Your task to perform on an android device: open app "Messenger Lite" Image 0: 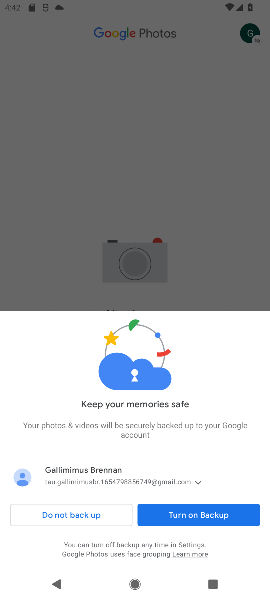
Step 0: press home button
Your task to perform on an android device: open app "Messenger Lite" Image 1: 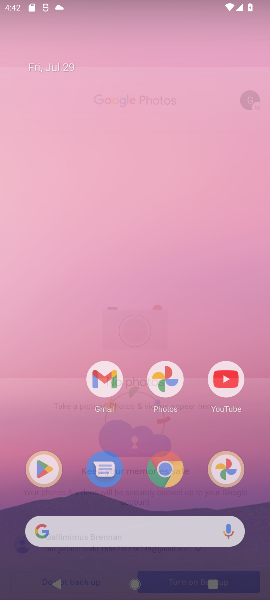
Step 1: press home button
Your task to perform on an android device: open app "Messenger Lite" Image 2: 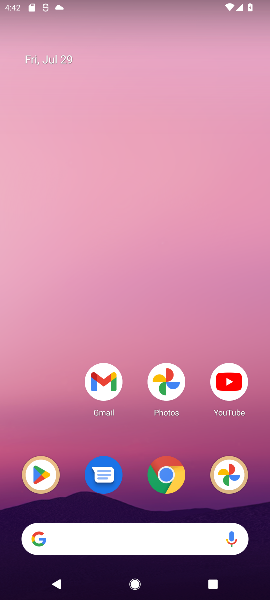
Step 2: press home button
Your task to perform on an android device: open app "Messenger Lite" Image 3: 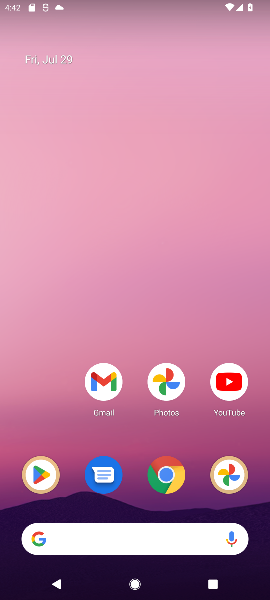
Step 3: press home button
Your task to perform on an android device: open app "Messenger Lite" Image 4: 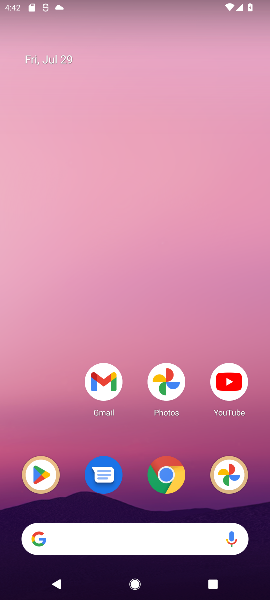
Step 4: click (36, 467)
Your task to perform on an android device: open app "Messenger Lite" Image 5: 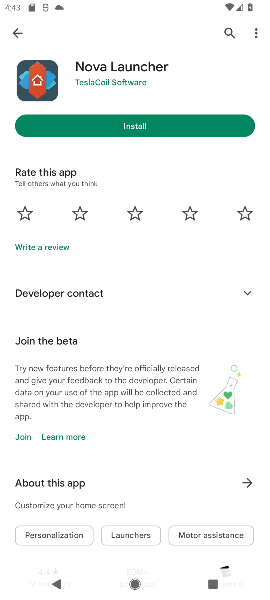
Step 5: click (226, 37)
Your task to perform on an android device: open app "Messenger Lite" Image 6: 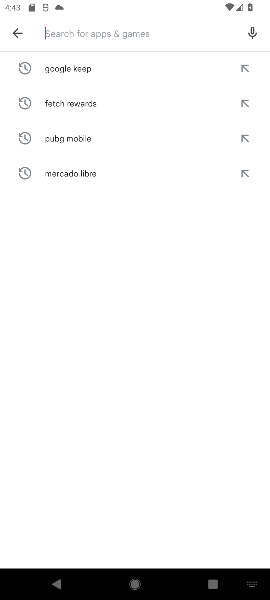
Step 6: type "Messenger Lite"
Your task to perform on an android device: open app "Messenger Lite" Image 7: 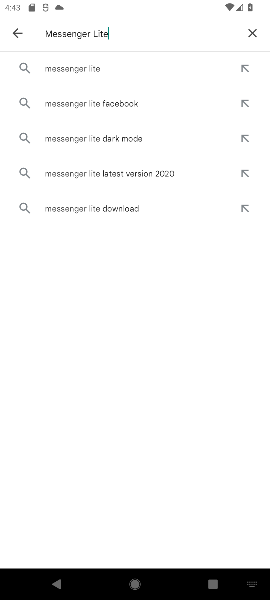
Step 7: click (76, 74)
Your task to perform on an android device: open app "Messenger Lite" Image 8: 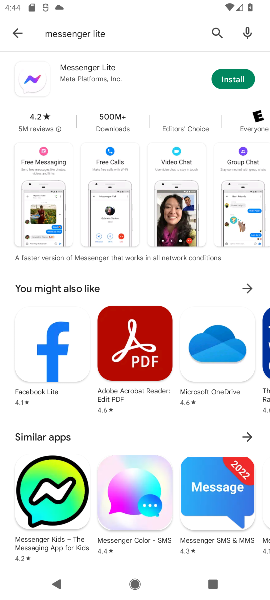
Step 8: click (236, 79)
Your task to perform on an android device: open app "Messenger Lite" Image 9: 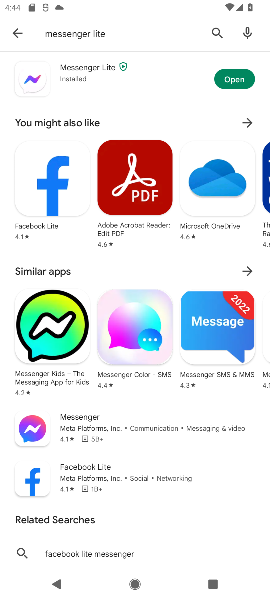
Step 9: click (236, 77)
Your task to perform on an android device: open app "Messenger Lite" Image 10: 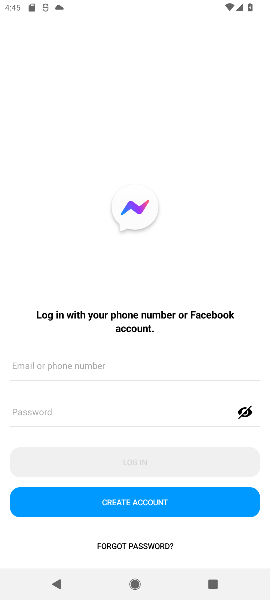
Step 10: task complete